Your task to perform on an android device: turn on showing notifications on the lock screen Image 0: 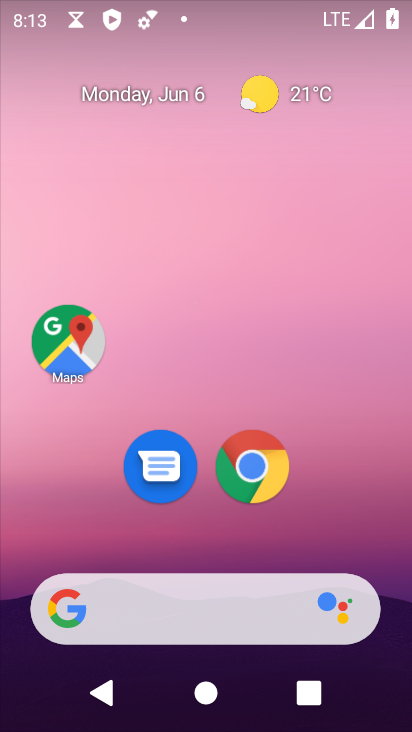
Step 0: click (288, 147)
Your task to perform on an android device: turn on showing notifications on the lock screen Image 1: 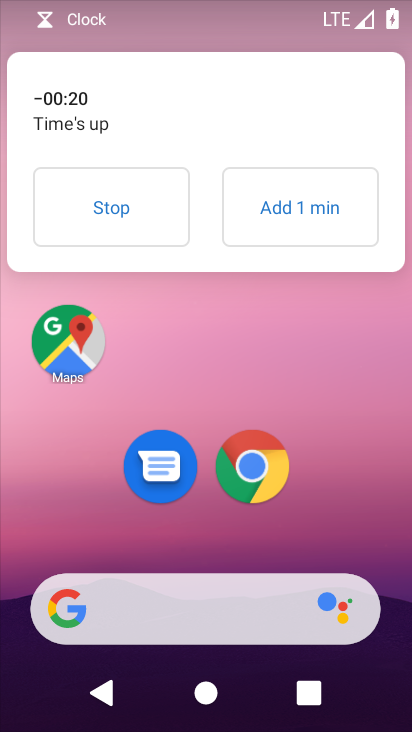
Step 1: click (111, 218)
Your task to perform on an android device: turn on showing notifications on the lock screen Image 2: 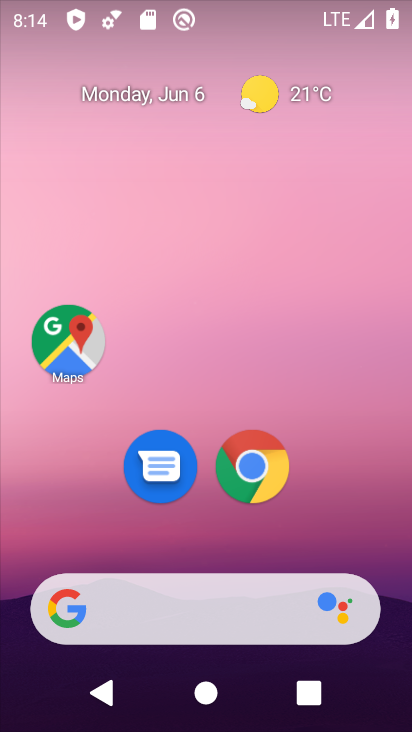
Step 2: drag from (168, 508) to (273, 165)
Your task to perform on an android device: turn on showing notifications on the lock screen Image 3: 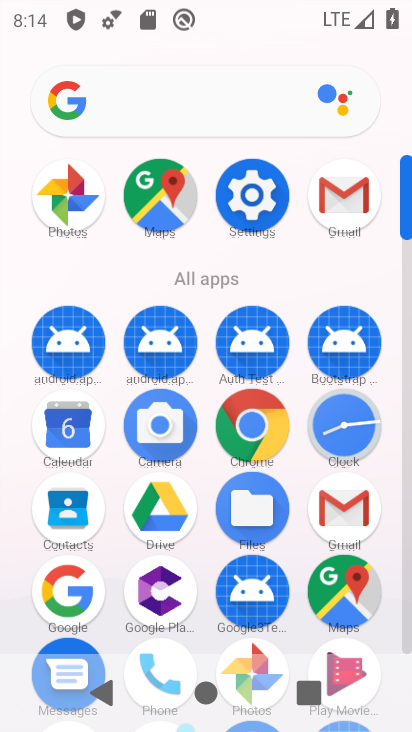
Step 3: click (258, 188)
Your task to perform on an android device: turn on showing notifications on the lock screen Image 4: 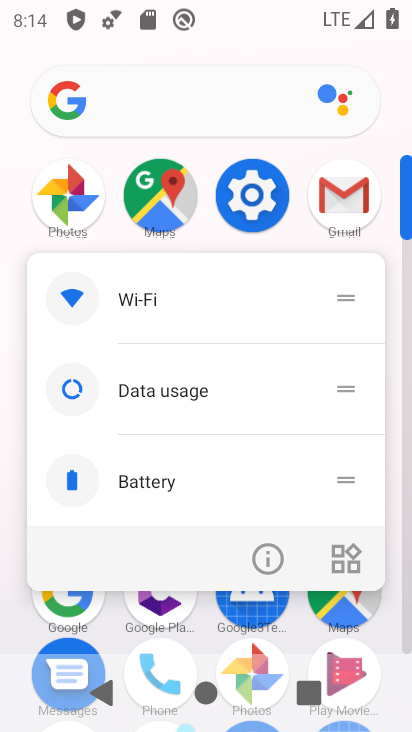
Step 4: click (272, 561)
Your task to perform on an android device: turn on showing notifications on the lock screen Image 5: 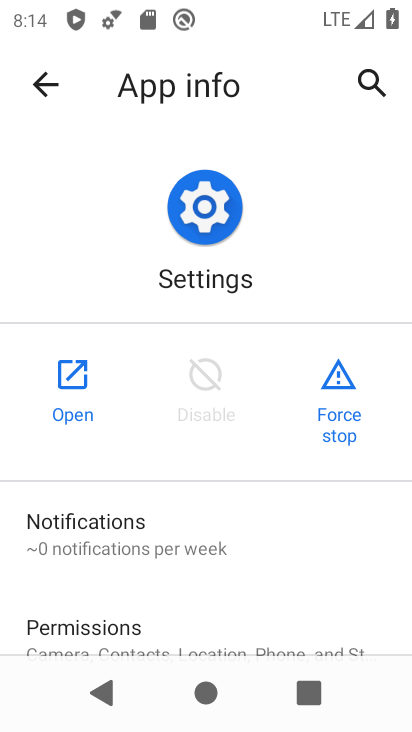
Step 5: click (67, 372)
Your task to perform on an android device: turn on showing notifications on the lock screen Image 6: 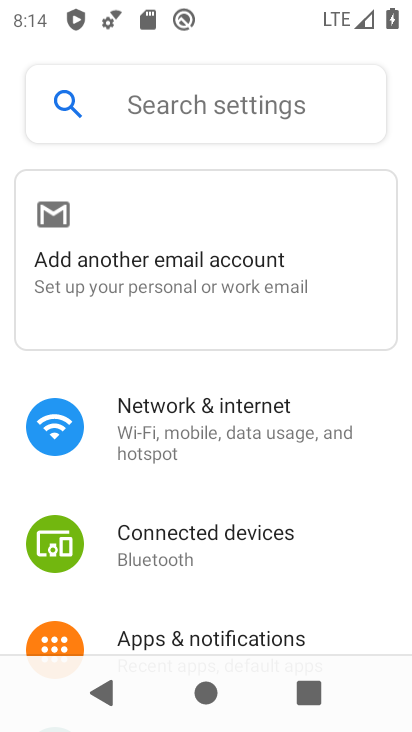
Step 6: drag from (216, 481) to (349, 2)
Your task to perform on an android device: turn on showing notifications on the lock screen Image 7: 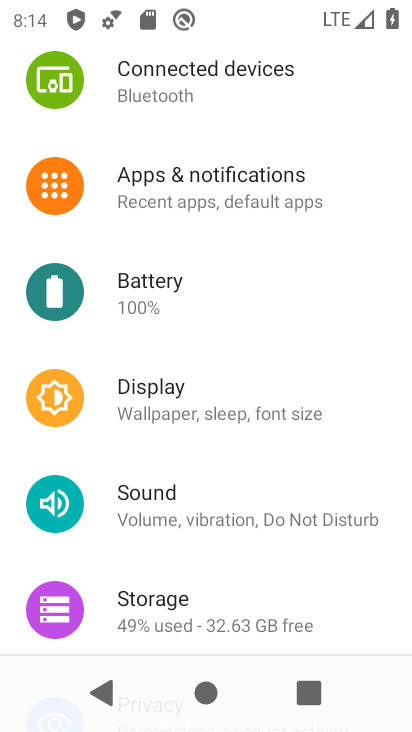
Step 7: click (205, 188)
Your task to perform on an android device: turn on showing notifications on the lock screen Image 8: 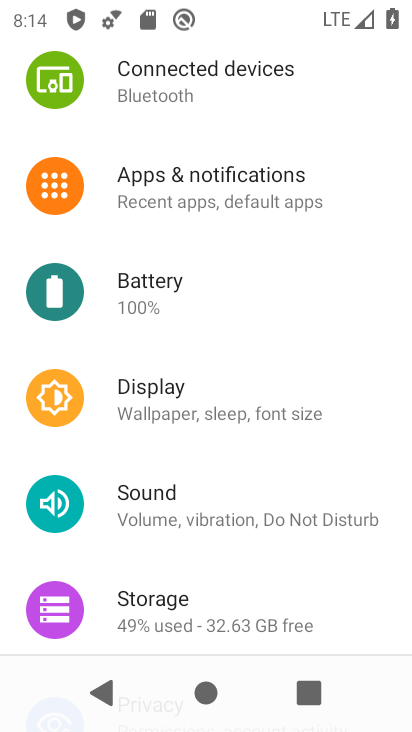
Step 8: drag from (207, 405) to (340, 2)
Your task to perform on an android device: turn on showing notifications on the lock screen Image 9: 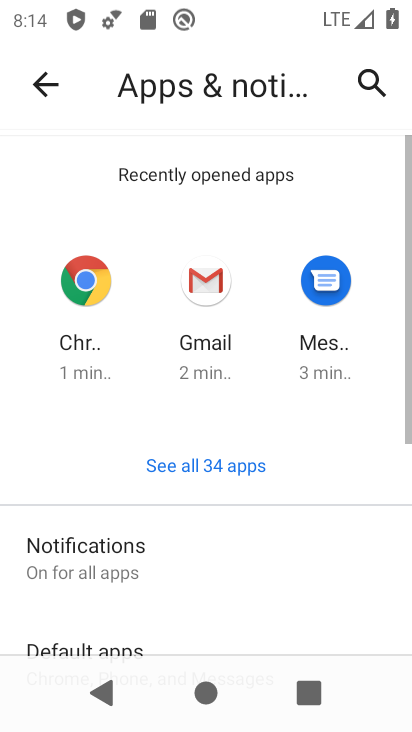
Step 9: drag from (209, 554) to (291, 264)
Your task to perform on an android device: turn on showing notifications on the lock screen Image 10: 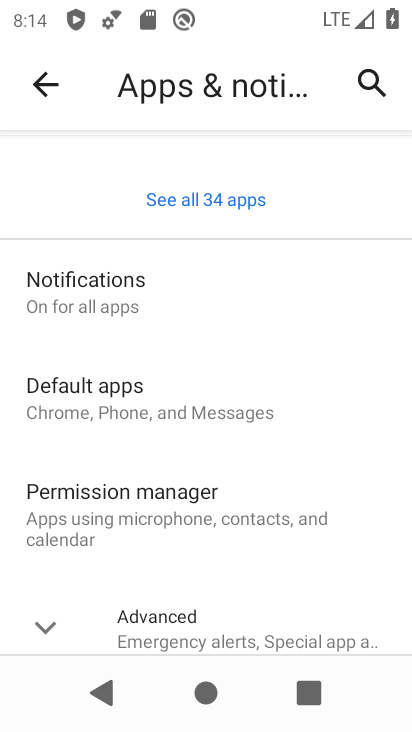
Step 10: click (120, 300)
Your task to perform on an android device: turn on showing notifications on the lock screen Image 11: 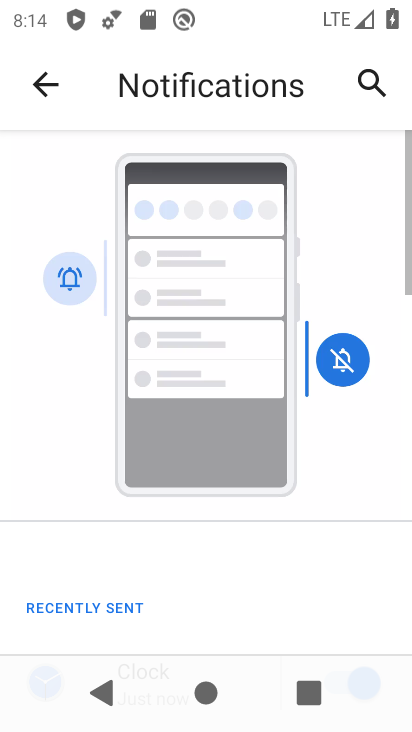
Step 11: drag from (283, 393) to (410, 96)
Your task to perform on an android device: turn on showing notifications on the lock screen Image 12: 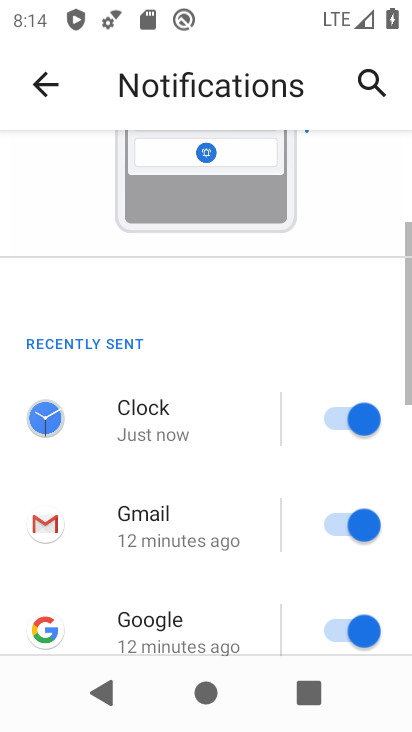
Step 12: drag from (286, 434) to (409, 1)
Your task to perform on an android device: turn on showing notifications on the lock screen Image 13: 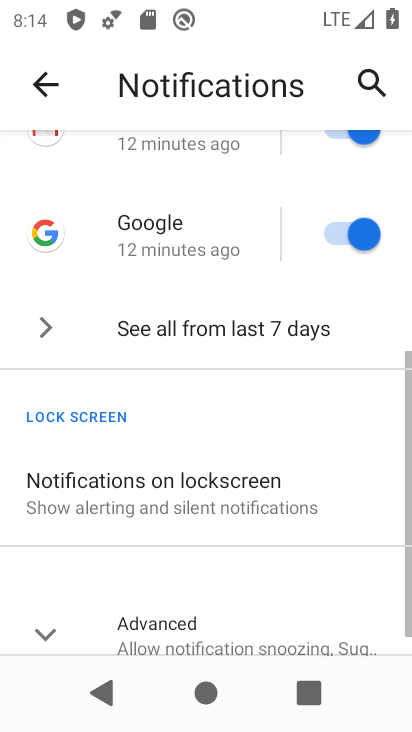
Step 13: click (218, 515)
Your task to perform on an android device: turn on showing notifications on the lock screen Image 14: 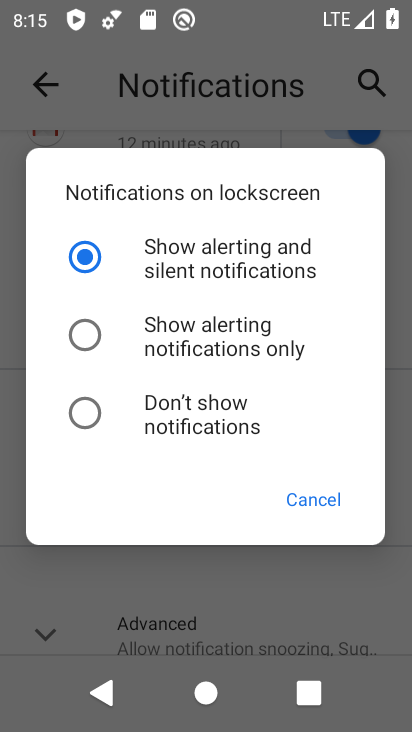
Step 14: click (131, 324)
Your task to perform on an android device: turn on showing notifications on the lock screen Image 15: 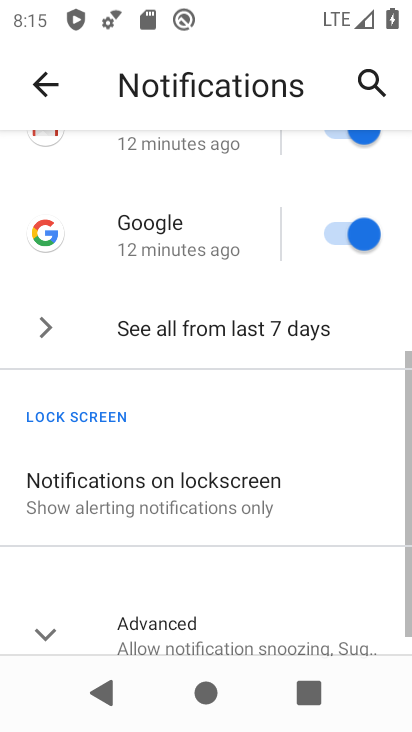
Step 15: task complete